Your task to perform on an android device: Open Youtube and go to the subscriptions tab Image 0: 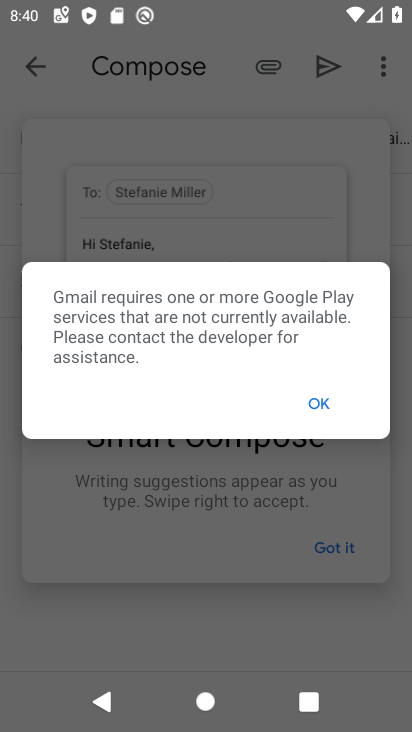
Step 0: press home button
Your task to perform on an android device: Open Youtube and go to the subscriptions tab Image 1: 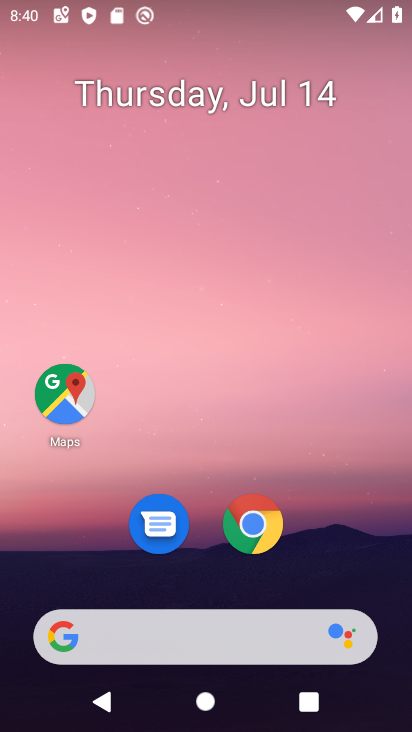
Step 1: drag from (337, 573) to (285, 0)
Your task to perform on an android device: Open Youtube and go to the subscriptions tab Image 2: 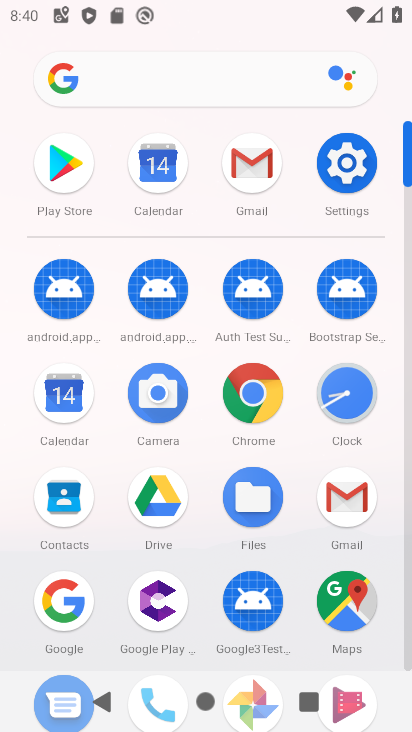
Step 2: drag from (267, 373) to (272, 181)
Your task to perform on an android device: Open Youtube and go to the subscriptions tab Image 3: 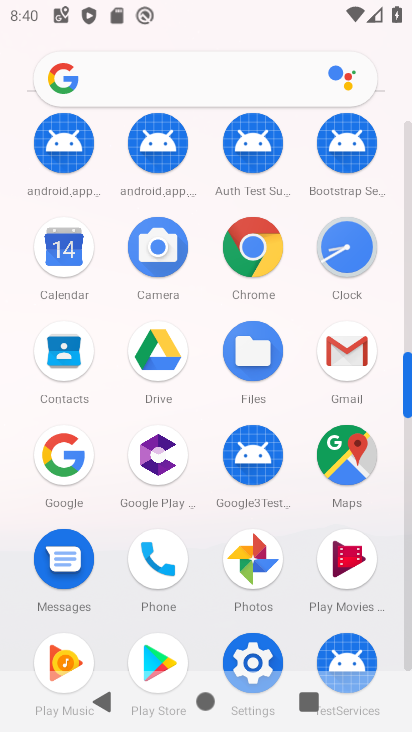
Step 3: drag from (276, 549) to (303, 265)
Your task to perform on an android device: Open Youtube and go to the subscriptions tab Image 4: 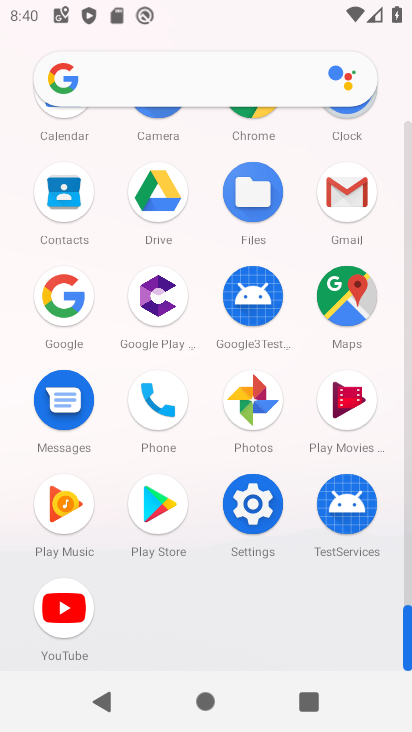
Step 4: click (71, 599)
Your task to perform on an android device: Open Youtube and go to the subscriptions tab Image 5: 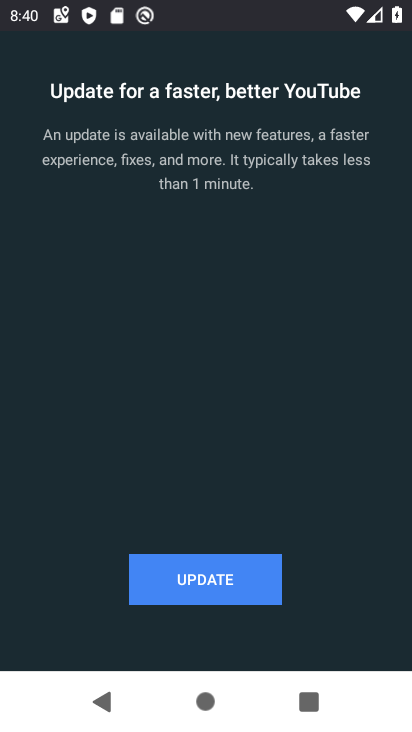
Step 5: click (245, 578)
Your task to perform on an android device: Open Youtube and go to the subscriptions tab Image 6: 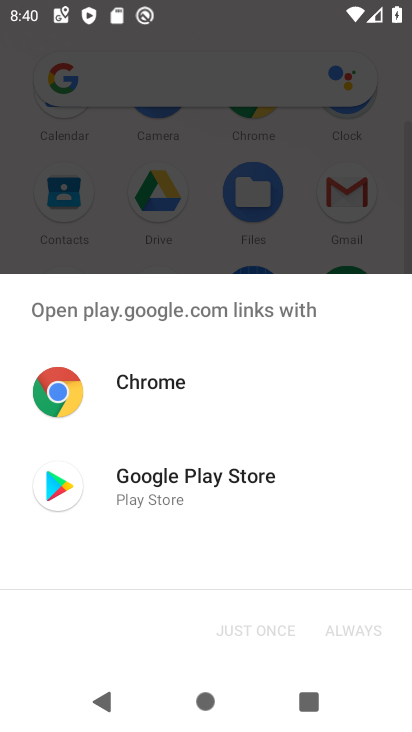
Step 6: click (168, 478)
Your task to perform on an android device: Open Youtube and go to the subscriptions tab Image 7: 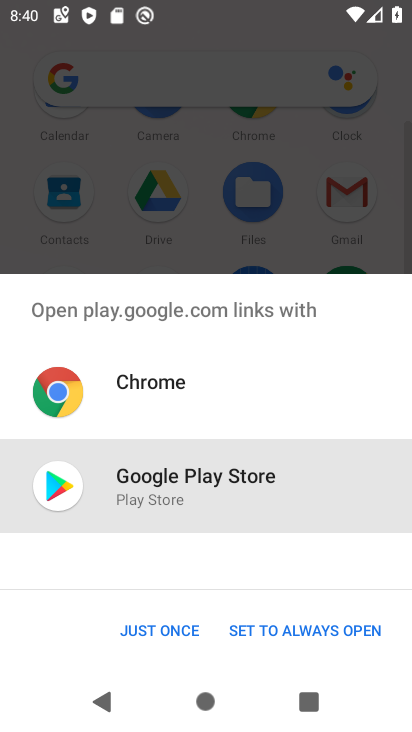
Step 7: click (179, 624)
Your task to perform on an android device: Open Youtube and go to the subscriptions tab Image 8: 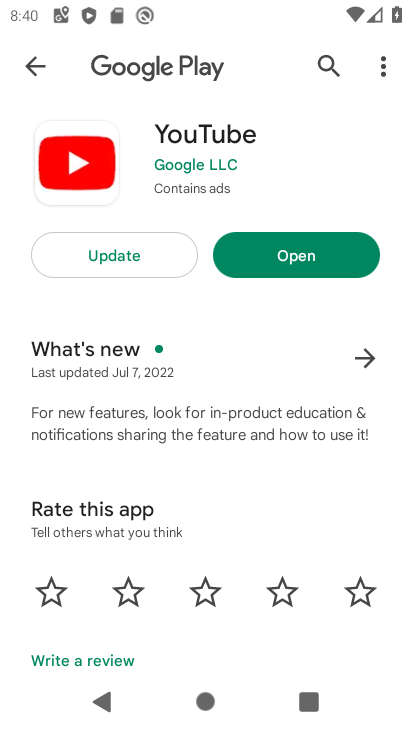
Step 8: click (138, 250)
Your task to perform on an android device: Open Youtube and go to the subscriptions tab Image 9: 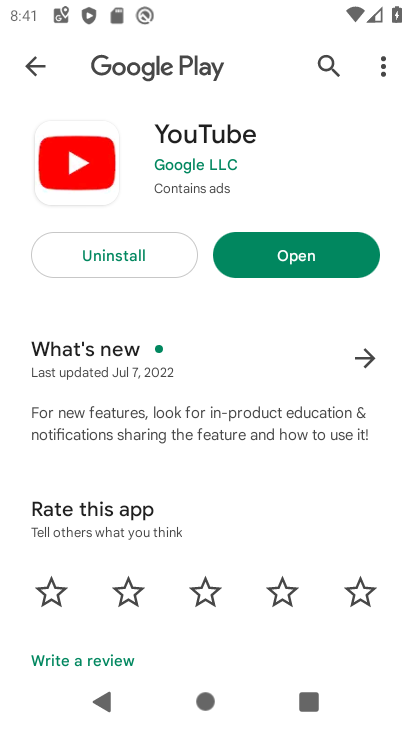
Step 9: click (269, 253)
Your task to perform on an android device: Open Youtube and go to the subscriptions tab Image 10: 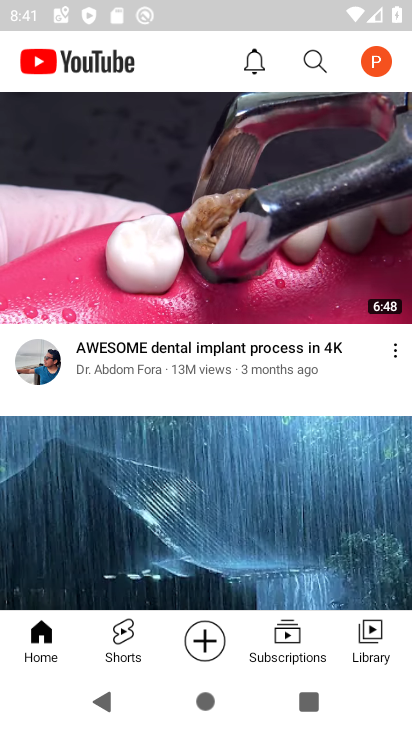
Step 10: click (285, 629)
Your task to perform on an android device: Open Youtube and go to the subscriptions tab Image 11: 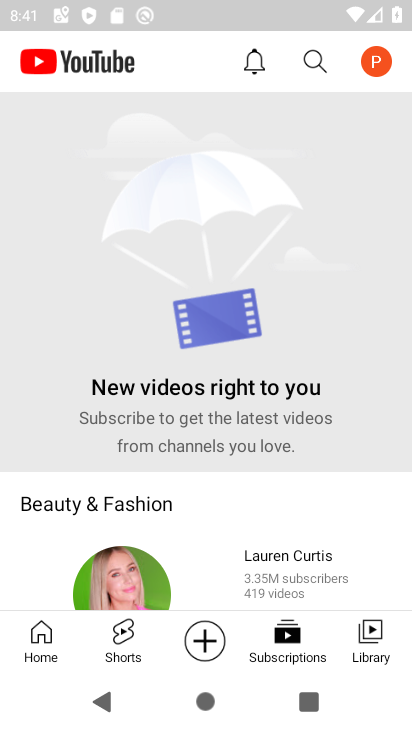
Step 11: task complete